Your task to perform on an android device: turn on data saver in the chrome app Image 0: 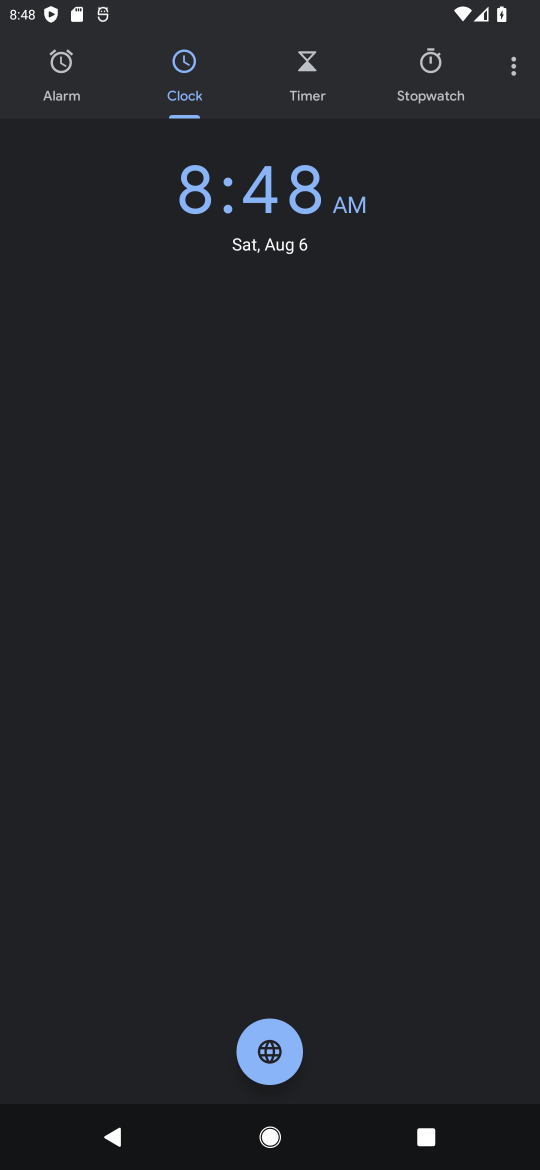
Step 0: press home button
Your task to perform on an android device: turn on data saver in the chrome app Image 1: 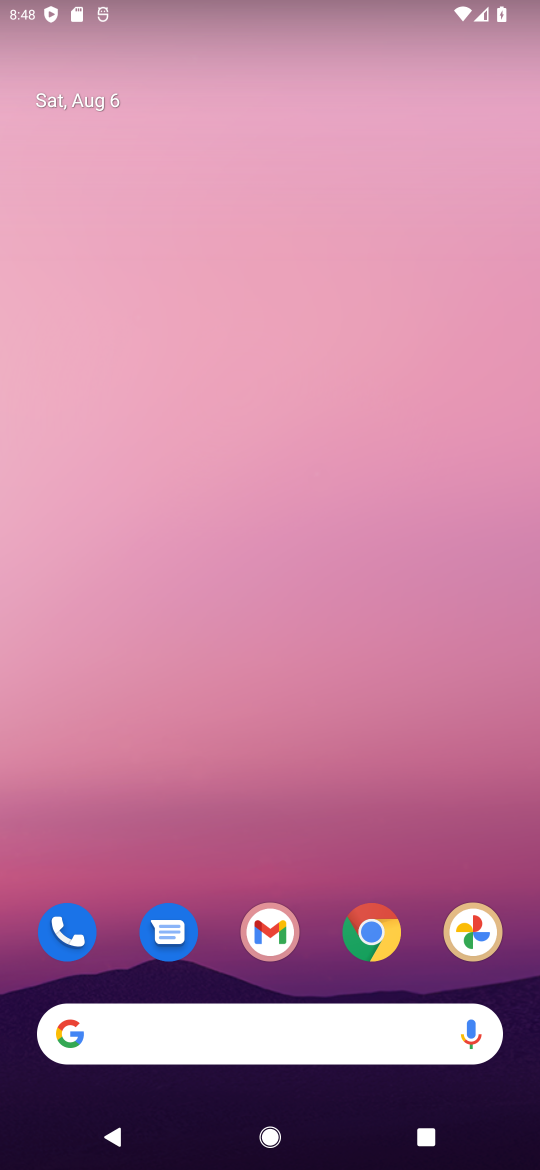
Step 1: click (374, 930)
Your task to perform on an android device: turn on data saver in the chrome app Image 2: 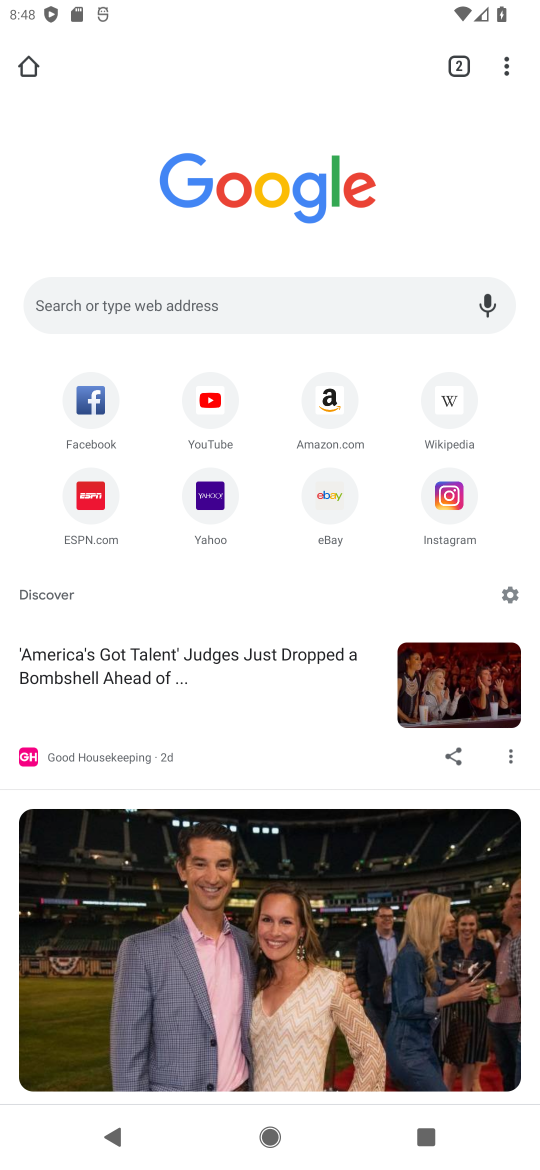
Step 2: click (508, 65)
Your task to perform on an android device: turn on data saver in the chrome app Image 3: 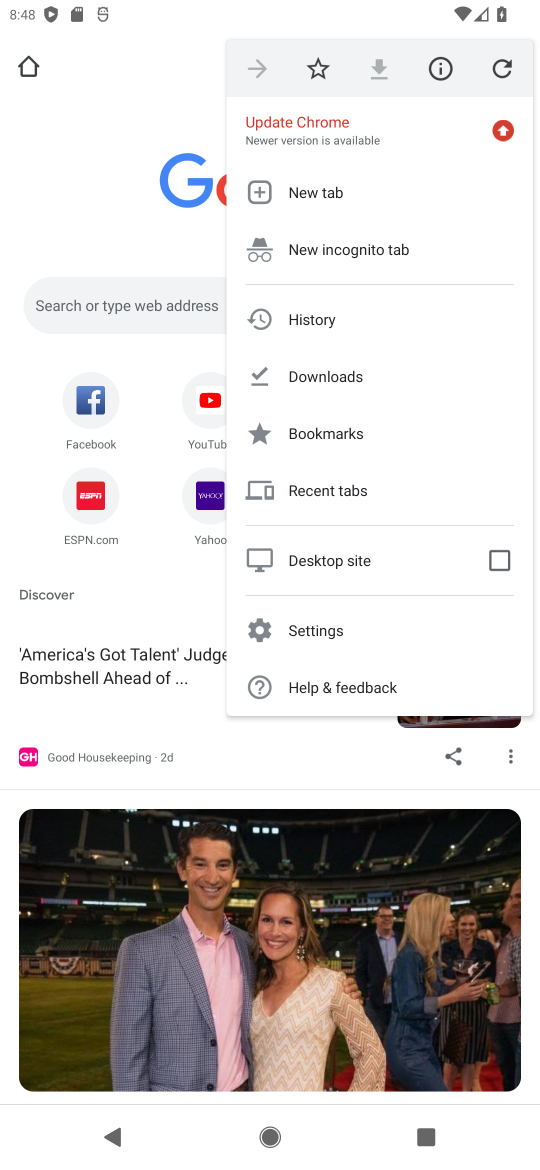
Step 3: click (325, 638)
Your task to perform on an android device: turn on data saver in the chrome app Image 4: 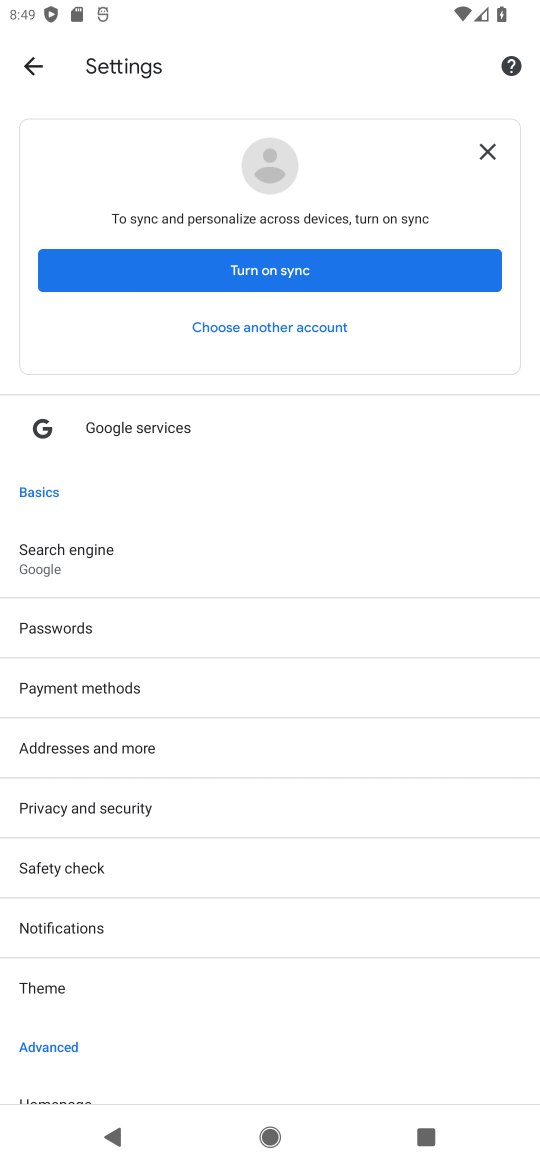
Step 4: drag from (104, 987) to (193, 843)
Your task to perform on an android device: turn on data saver in the chrome app Image 5: 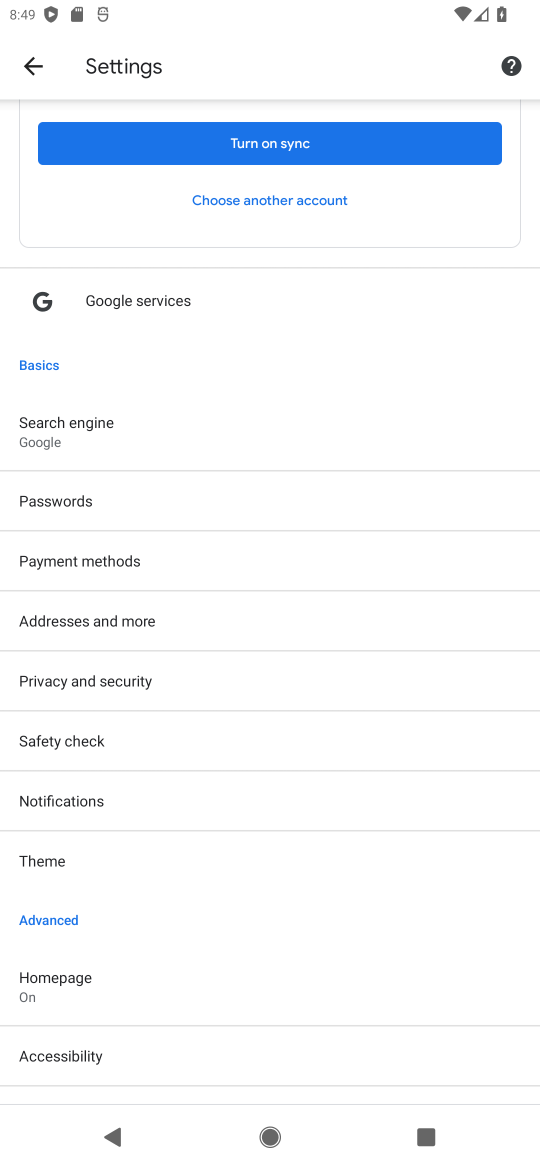
Step 5: drag from (140, 1004) to (202, 837)
Your task to perform on an android device: turn on data saver in the chrome app Image 6: 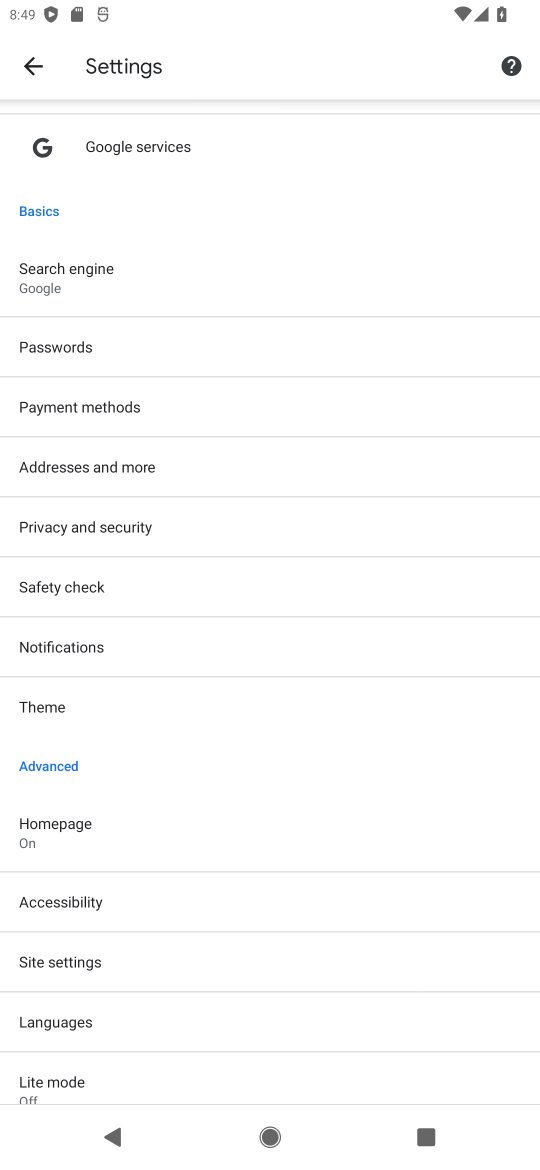
Step 6: drag from (150, 1008) to (173, 891)
Your task to perform on an android device: turn on data saver in the chrome app Image 7: 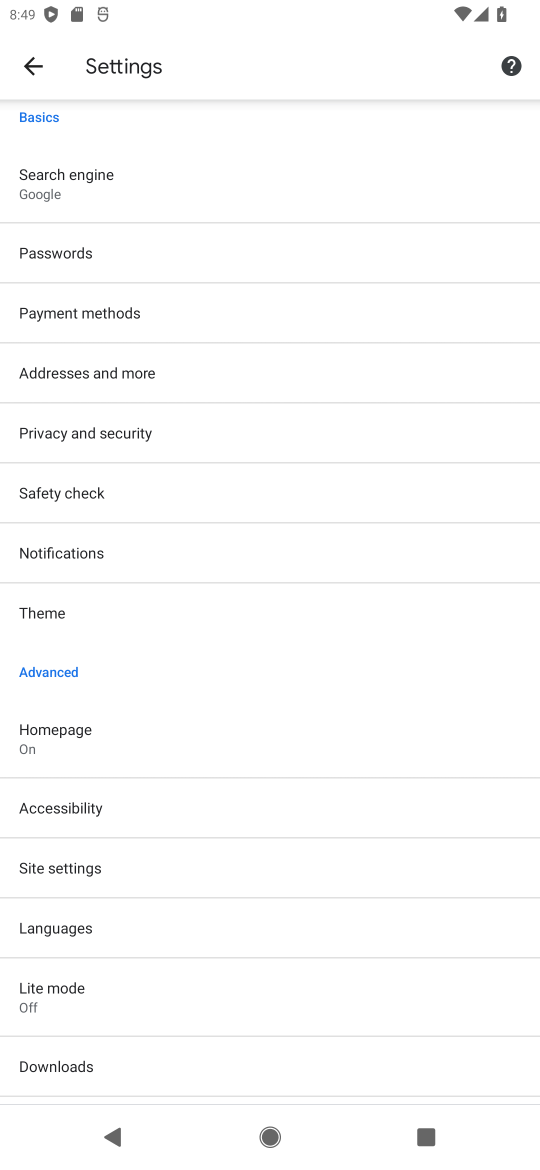
Step 7: click (80, 1002)
Your task to perform on an android device: turn on data saver in the chrome app Image 8: 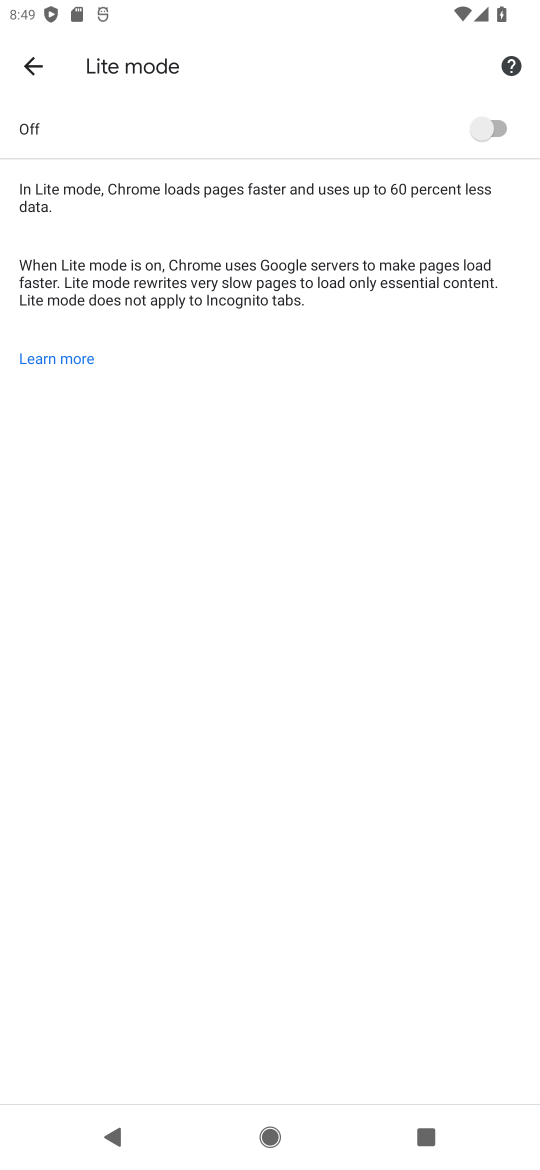
Step 8: click (493, 140)
Your task to perform on an android device: turn on data saver in the chrome app Image 9: 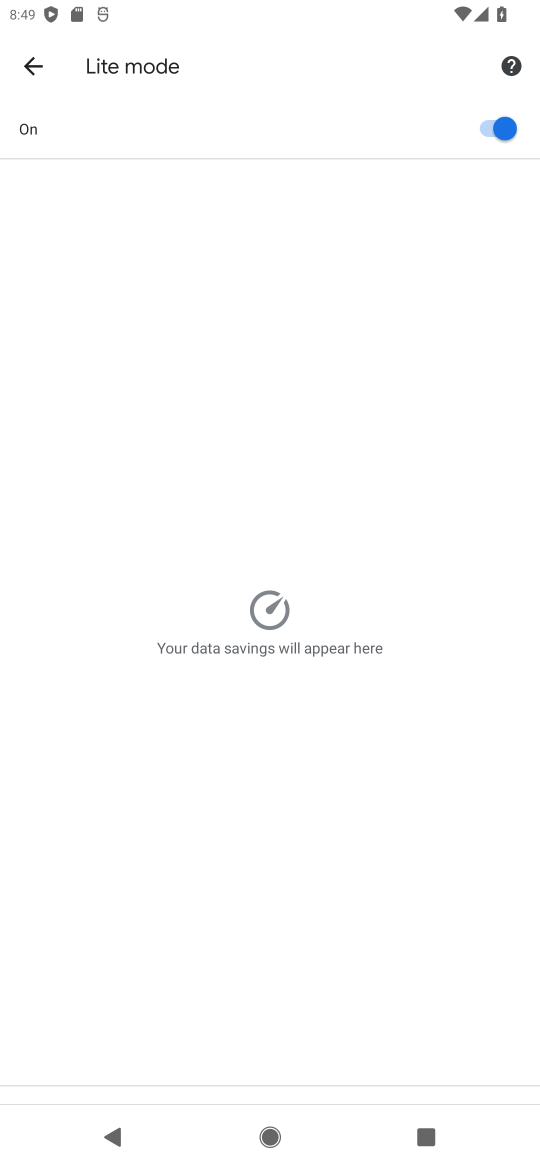
Step 9: task complete